Your task to perform on an android device: Go to calendar. Show me events next week Image 0: 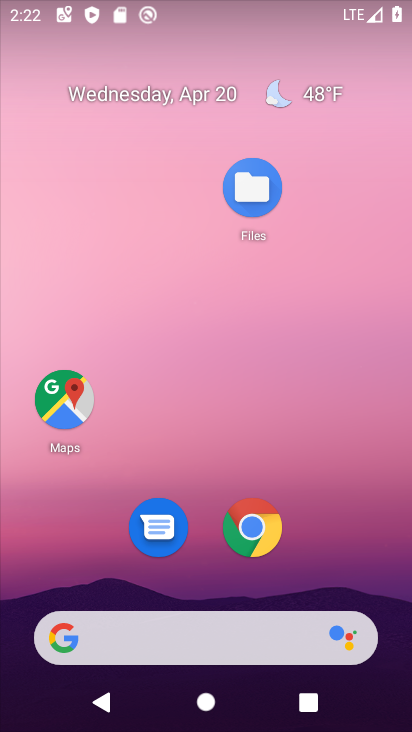
Step 0: click (132, 102)
Your task to perform on an android device: Go to calendar. Show me events next week Image 1: 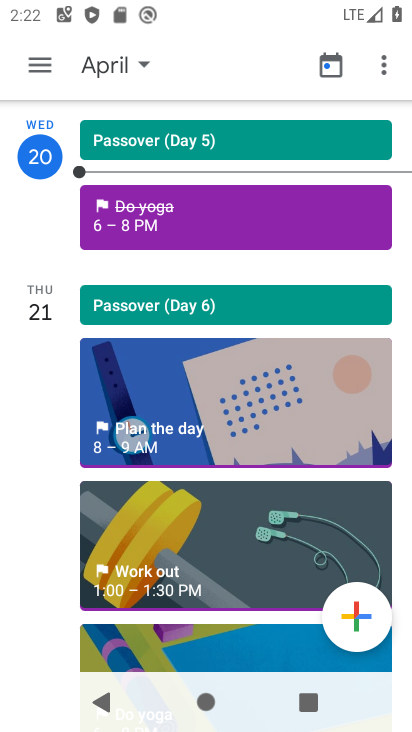
Step 1: click (120, 68)
Your task to perform on an android device: Go to calendar. Show me events next week Image 2: 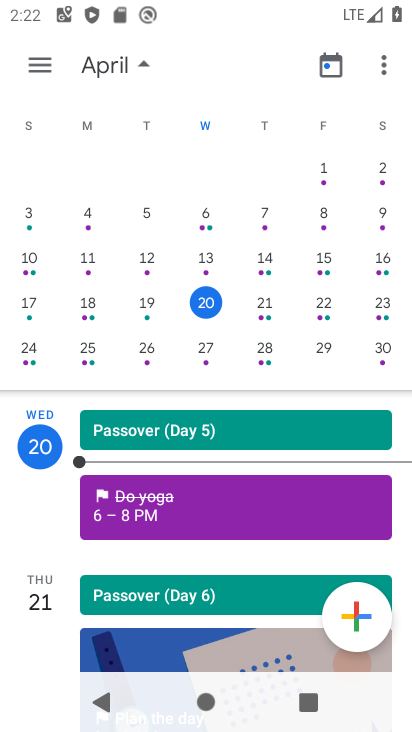
Step 2: drag from (374, 270) to (8, 311)
Your task to perform on an android device: Go to calendar. Show me events next week Image 3: 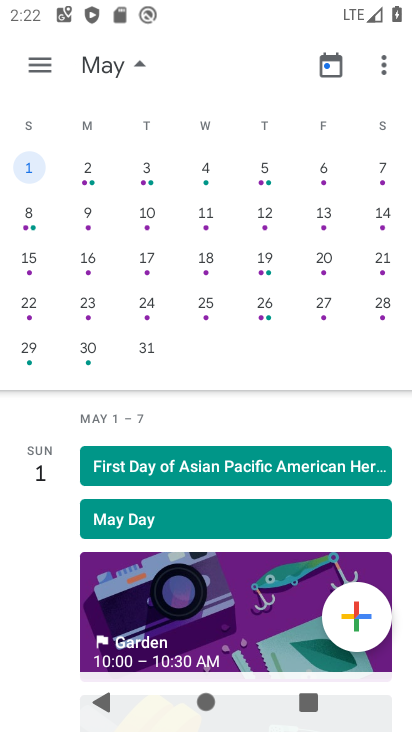
Step 3: drag from (353, 358) to (7, 264)
Your task to perform on an android device: Go to calendar. Show me events next week Image 4: 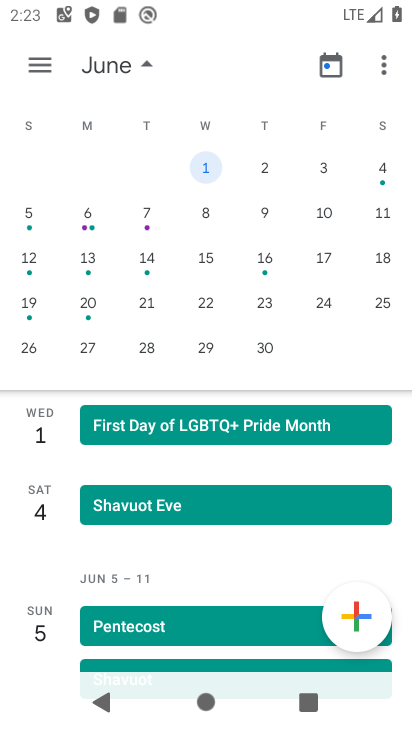
Step 4: drag from (22, 168) to (342, 241)
Your task to perform on an android device: Go to calendar. Show me events next week Image 5: 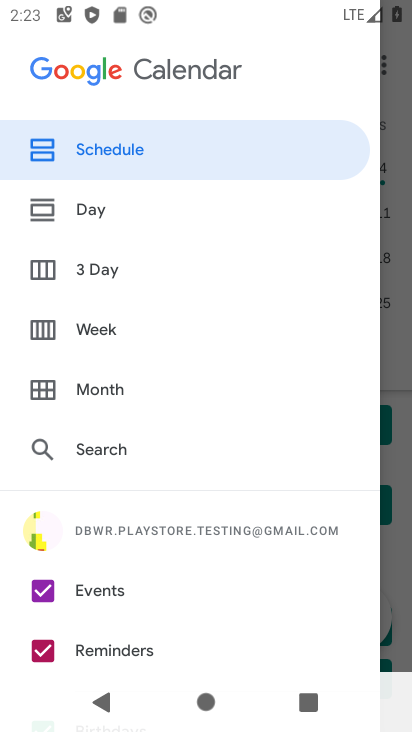
Step 5: click (401, 270)
Your task to perform on an android device: Go to calendar. Show me events next week Image 6: 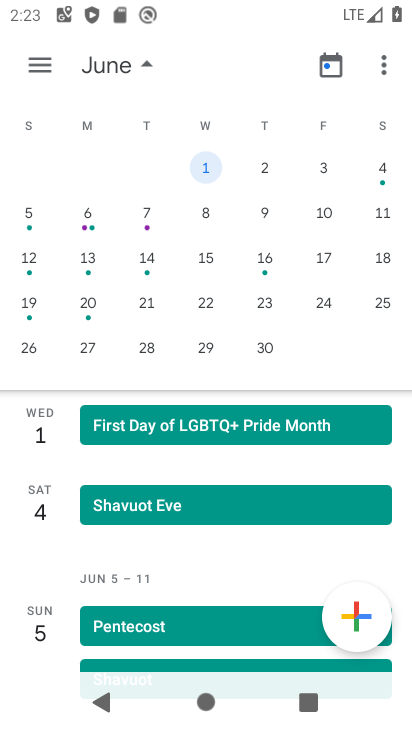
Step 6: drag from (26, 285) to (381, 256)
Your task to perform on an android device: Go to calendar. Show me events next week Image 7: 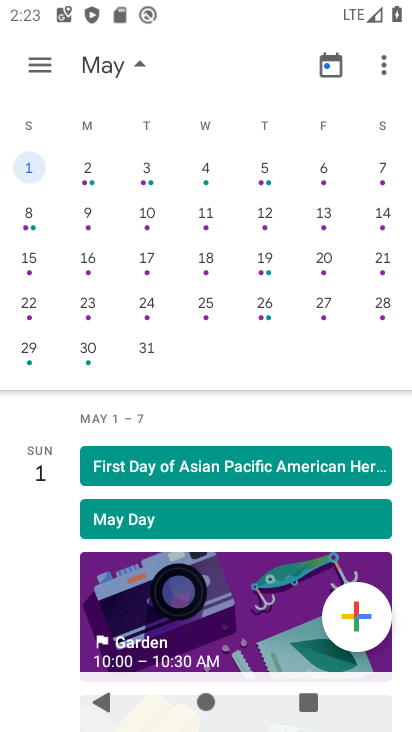
Step 7: drag from (41, 320) to (405, 262)
Your task to perform on an android device: Go to calendar. Show me events next week Image 8: 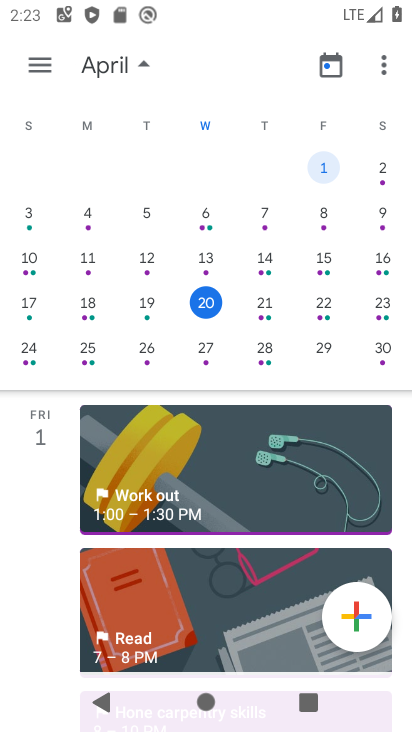
Step 8: click (212, 345)
Your task to perform on an android device: Go to calendar. Show me events next week Image 9: 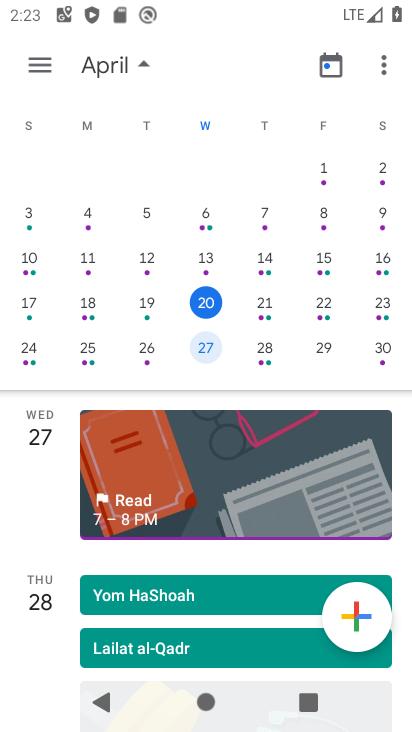
Step 9: task complete